Your task to perform on an android device: What's the weather? Image 0: 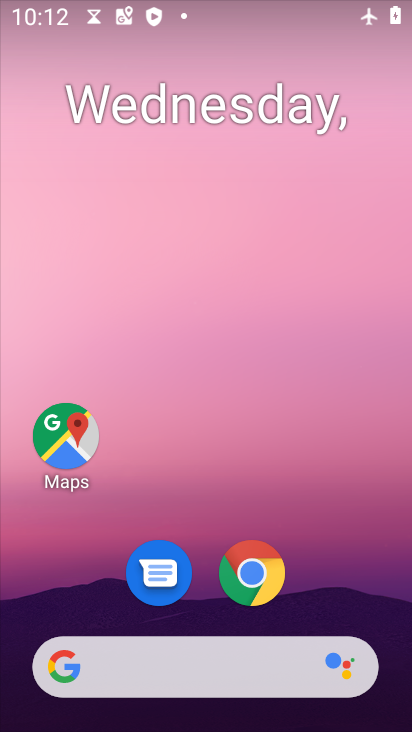
Step 0: click (254, 569)
Your task to perform on an android device: What's the weather? Image 1: 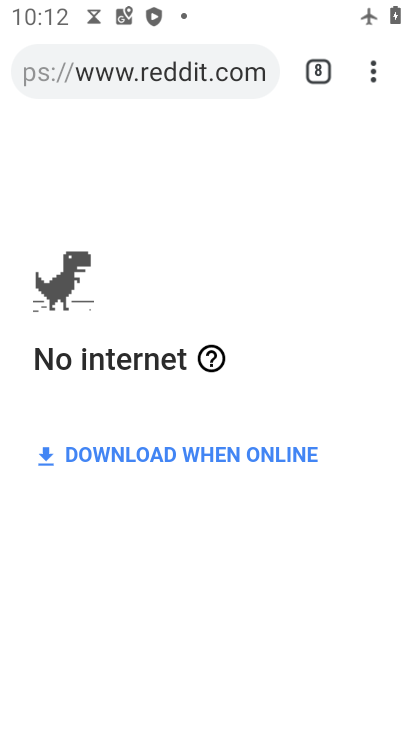
Step 1: click (368, 72)
Your task to perform on an android device: What's the weather? Image 2: 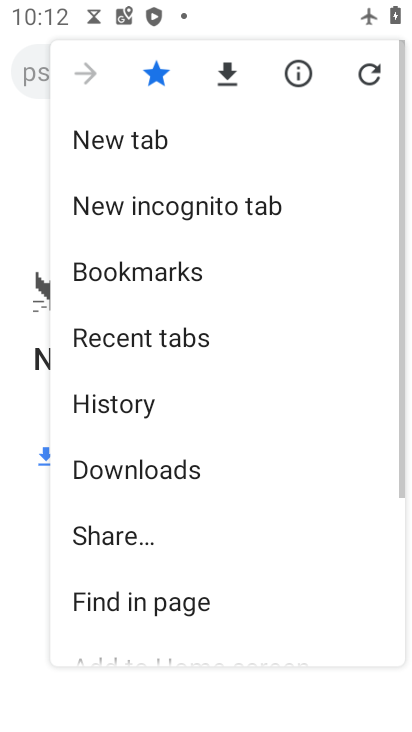
Step 2: click (126, 130)
Your task to perform on an android device: What's the weather? Image 3: 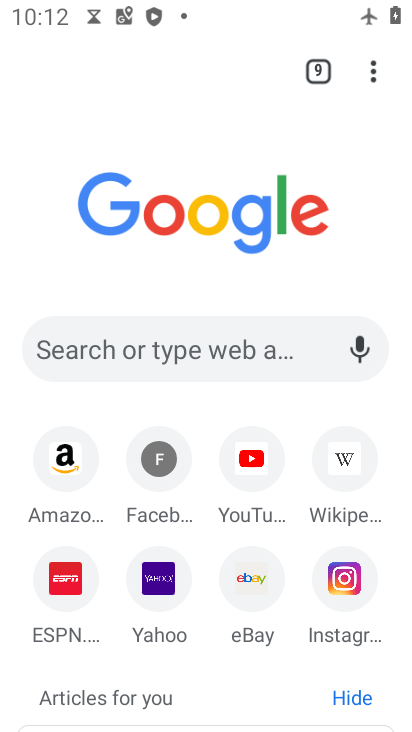
Step 3: click (210, 335)
Your task to perform on an android device: What's the weather? Image 4: 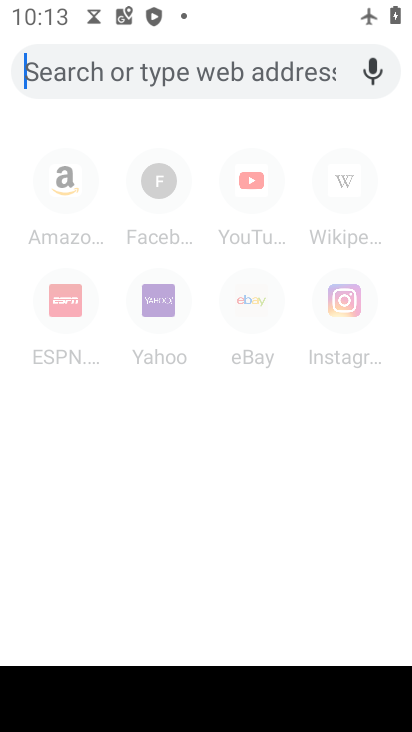
Step 4: type "What's the weather?"
Your task to perform on an android device: What's the weather? Image 5: 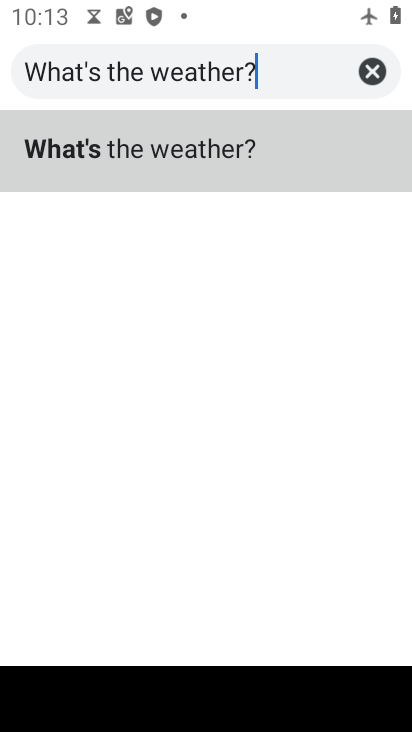
Step 5: click (220, 146)
Your task to perform on an android device: What's the weather? Image 6: 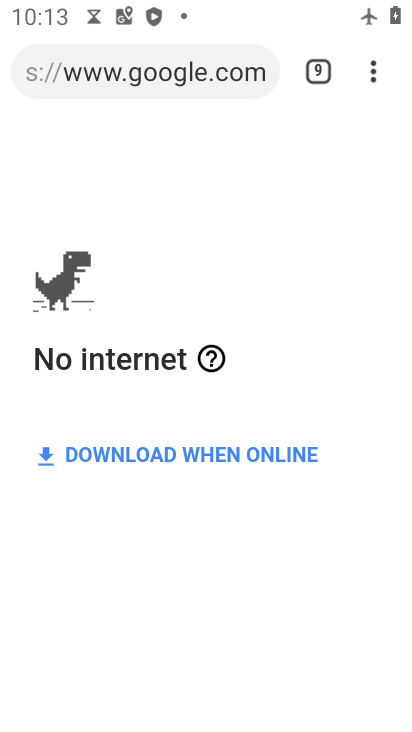
Step 6: task complete